Your task to perform on an android device: When is my next meeting? Image 0: 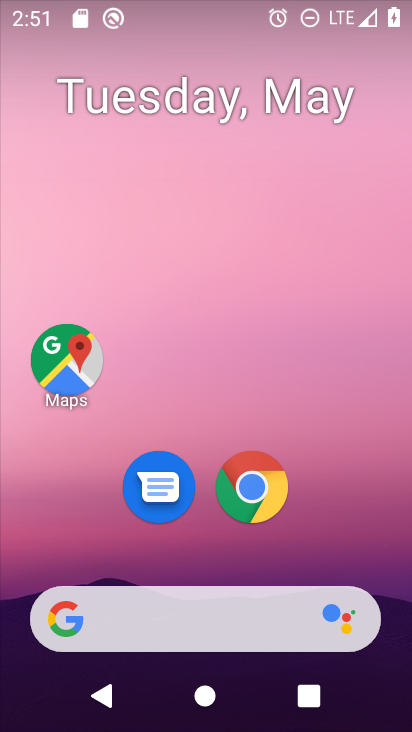
Step 0: task complete